Your task to perform on an android device: Search for dell xps on costco.com, select the first entry, and add it to the cart. Image 0: 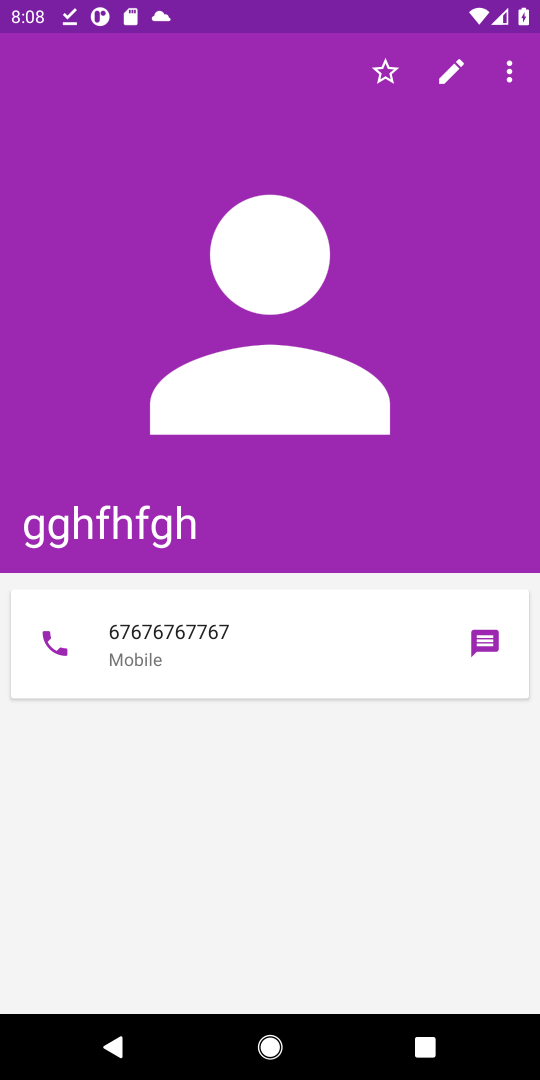
Step 0: press home button
Your task to perform on an android device: Search for dell xps on costco.com, select the first entry, and add it to the cart. Image 1: 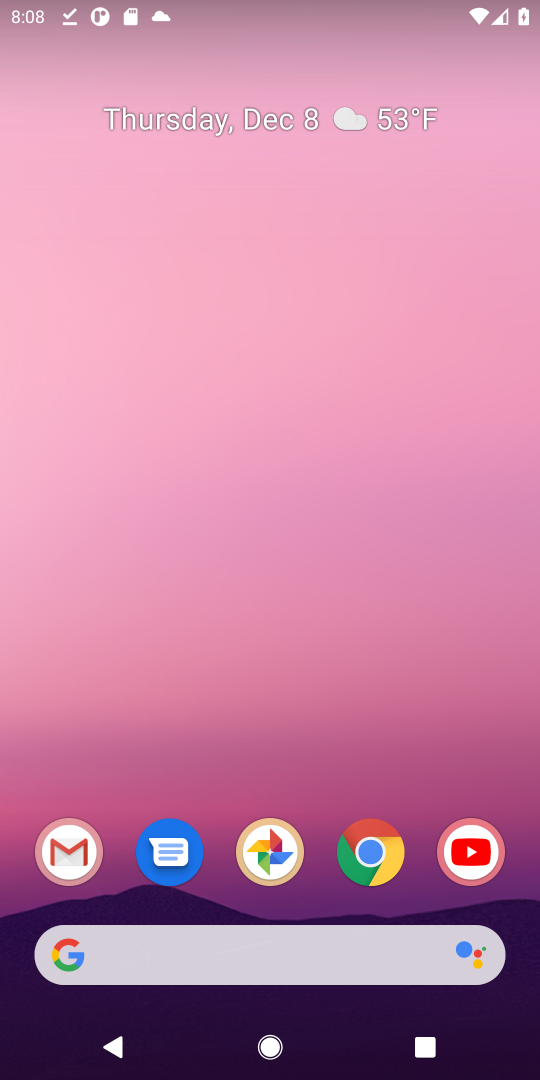
Step 1: click (199, 940)
Your task to perform on an android device: Search for dell xps on costco.com, select the first entry, and add it to the cart. Image 2: 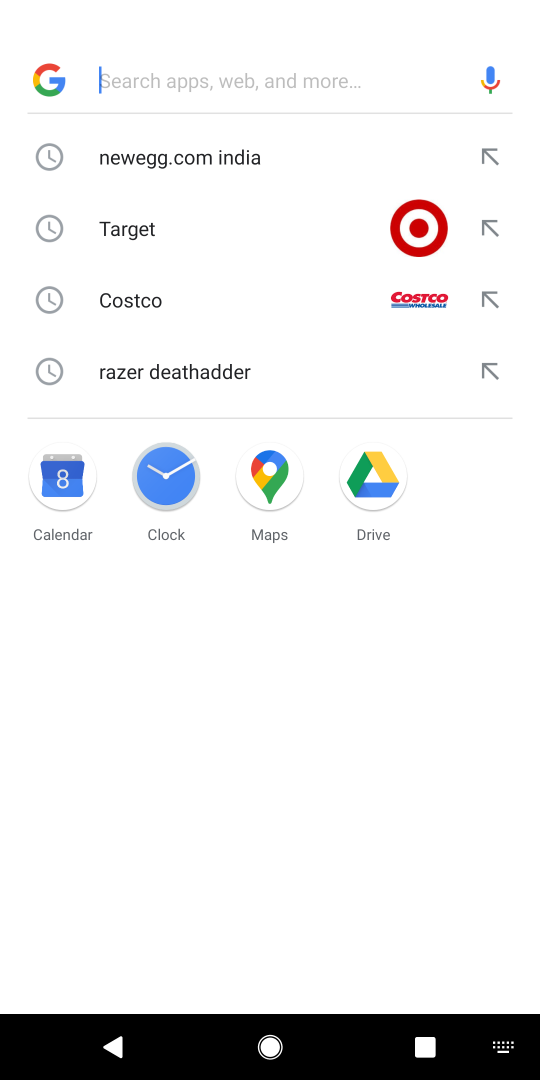
Step 2: type "costco.com"
Your task to perform on an android device: Search for dell xps on costco.com, select the first entry, and add it to the cart. Image 3: 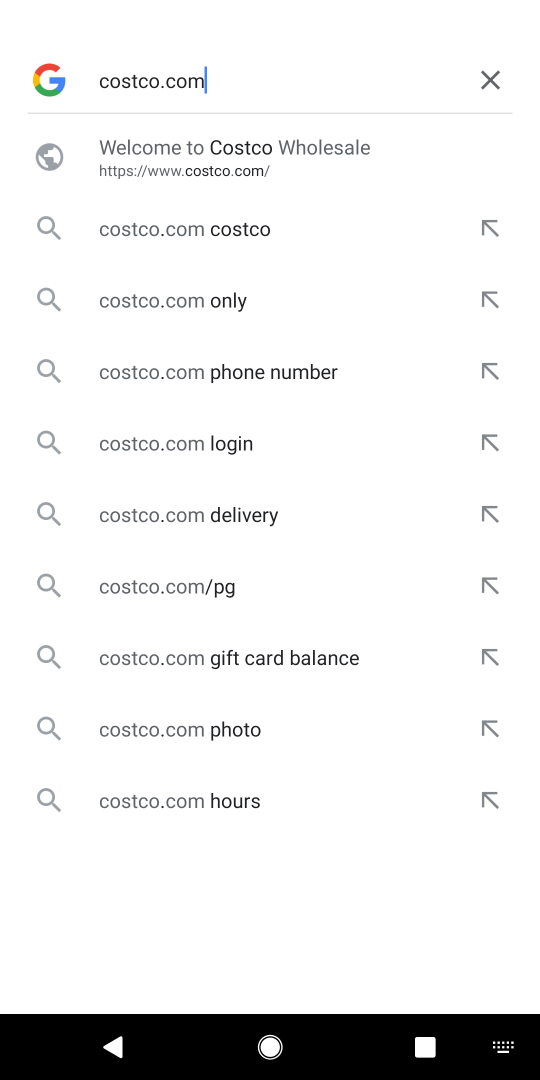
Step 3: click (324, 163)
Your task to perform on an android device: Search for dell xps on costco.com, select the first entry, and add it to the cart. Image 4: 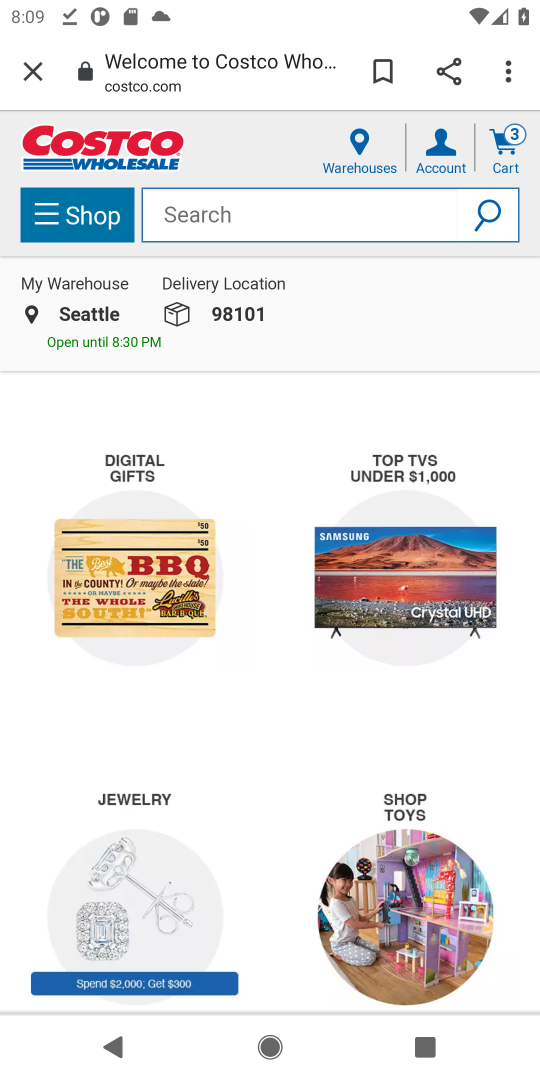
Step 4: click (190, 200)
Your task to perform on an android device: Search for dell xps on costco.com, select the first entry, and add it to the cart. Image 5: 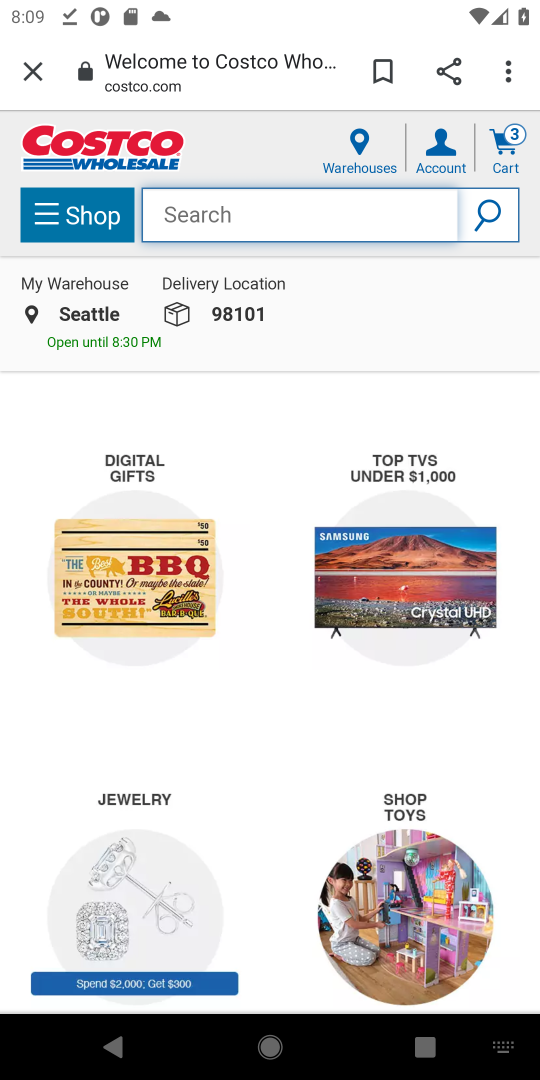
Step 5: task complete